Your task to perform on an android device: Clear the shopping cart on bestbuy. Search for razer nari on bestbuy, select the first entry, and add it to the cart. Image 0: 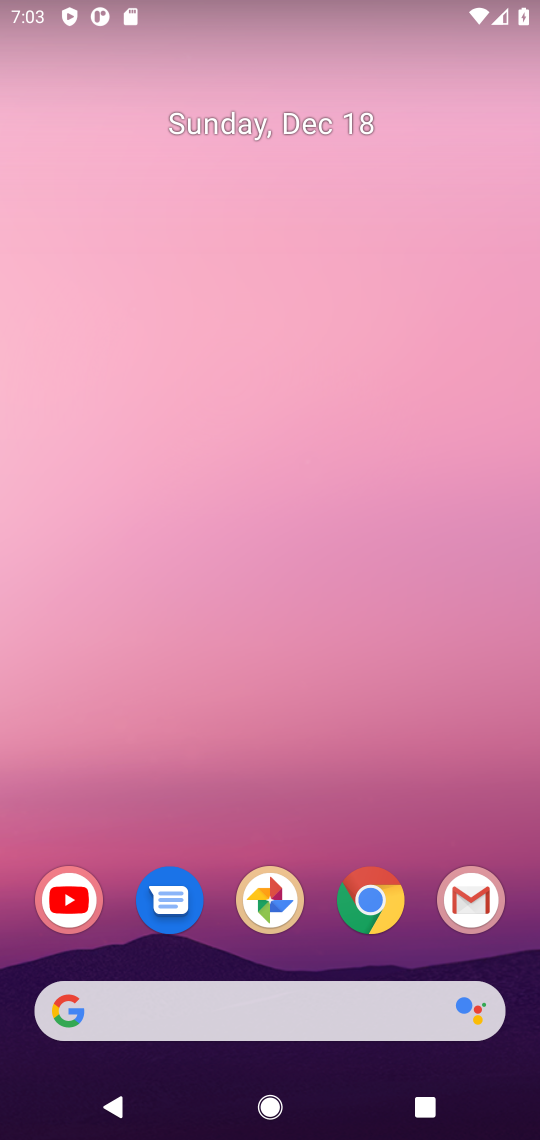
Step 0: click (363, 910)
Your task to perform on an android device: Clear the shopping cart on bestbuy. Search for razer nari on bestbuy, select the first entry, and add it to the cart. Image 1: 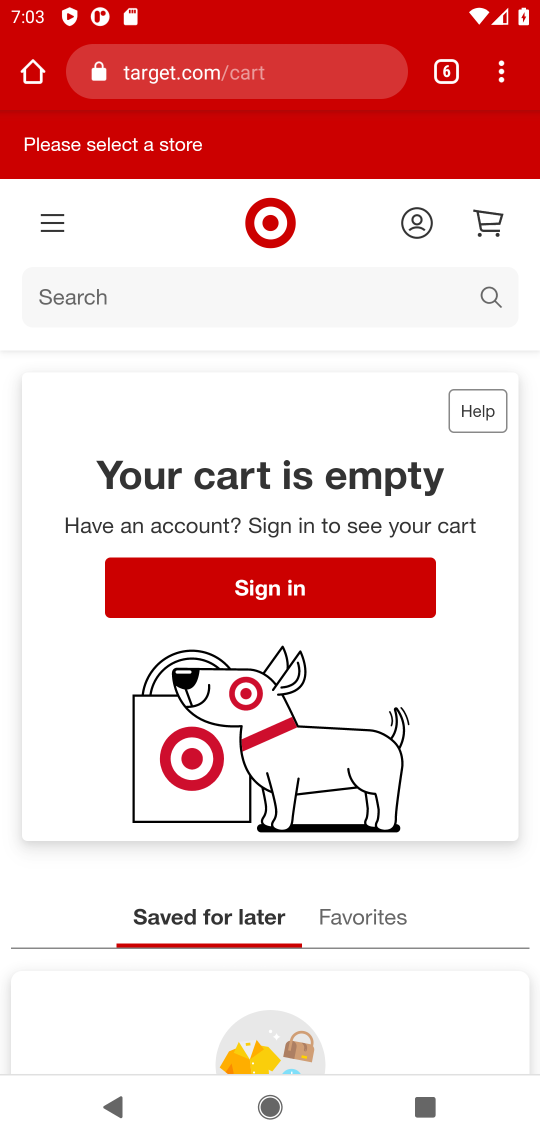
Step 1: click (442, 71)
Your task to perform on an android device: Clear the shopping cart on bestbuy. Search for razer nari on bestbuy, select the first entry, and add it to the cart. Image 2: 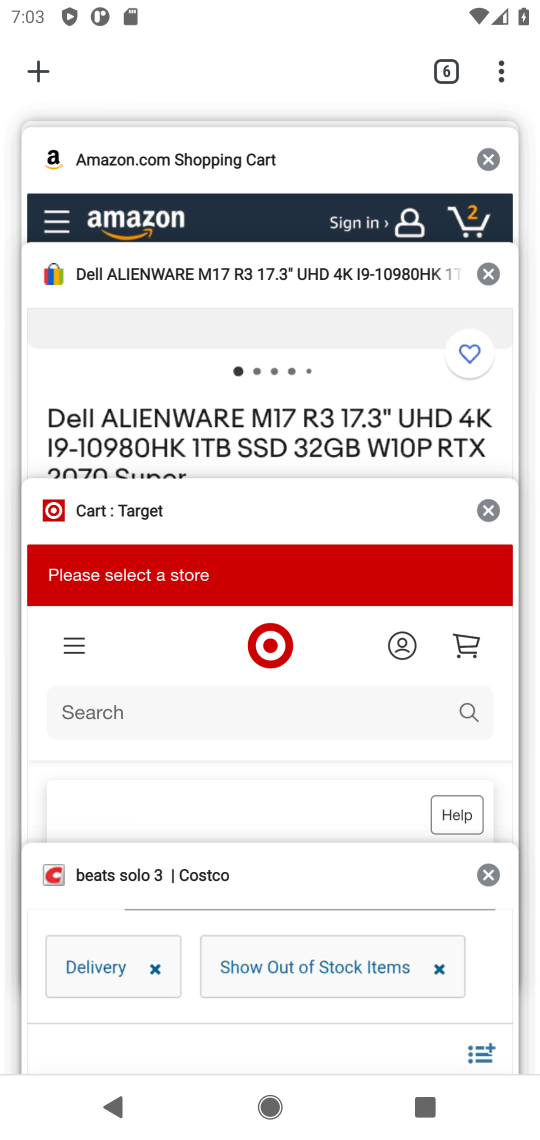
Step 2: drag from (224, 1038) to (307, 373)
Your task to perform on an android device: Clear the shopping cart on bestbuy. Search for razer nari on bestbuy, select the first entry, and add it to the cart. Image 3: 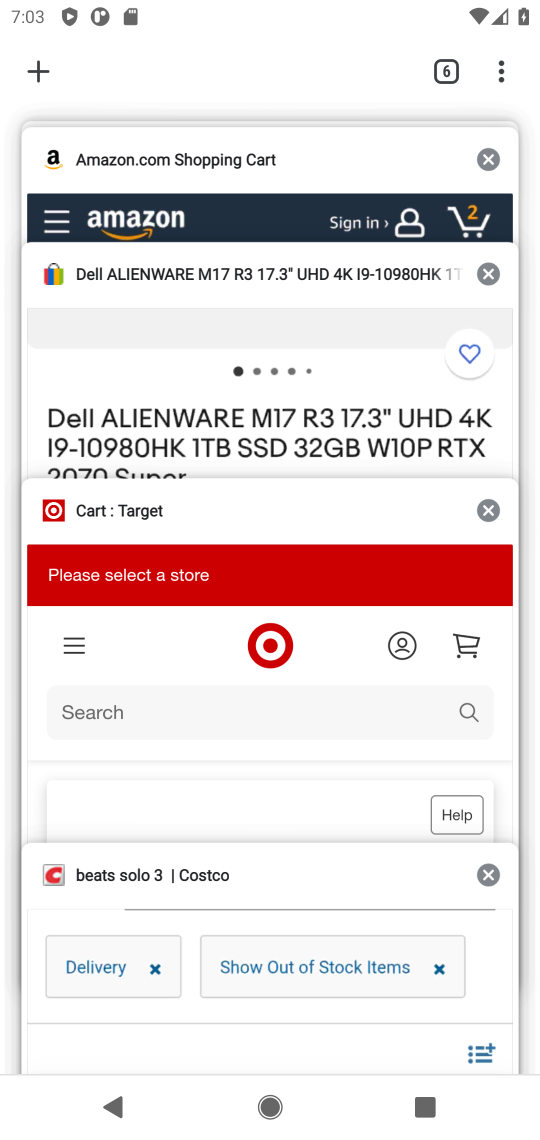
Step 3: drag from (307, 373) to (505, 33)
Your task to perform on an android device: Clear the shopping cart on bestbuy. Search for razer nari on bestbuy, select the first entry, and add it to the cart. Image 4: 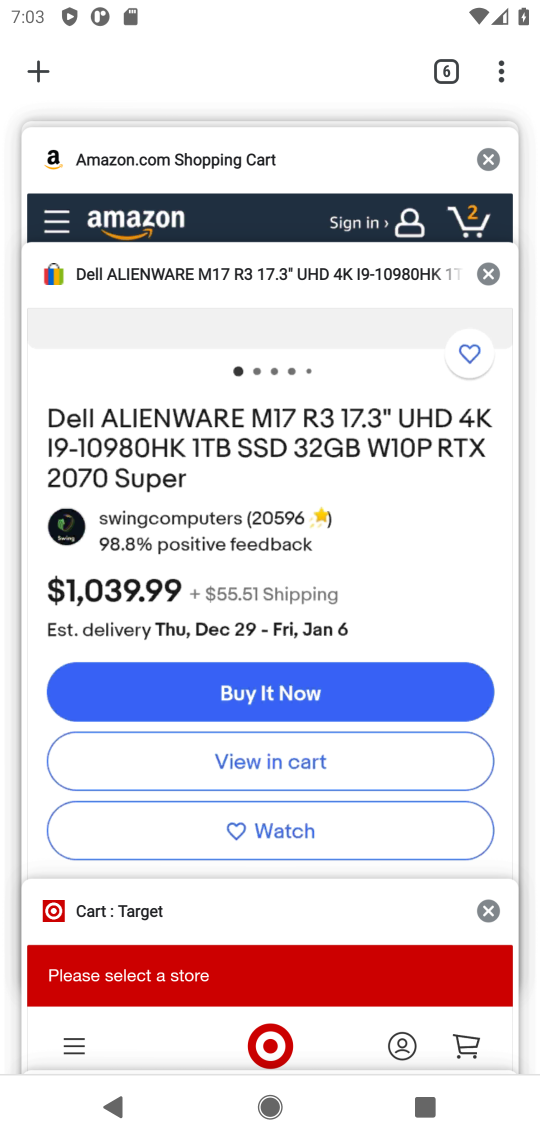
Step 4: drag from (264, 976) to (338, 83)
Your task to perform on an android device: Clear the shopping cart on bestbuy. Search for razer nari on bestbuy, select the first entry, and add it to the cart. Image 5: 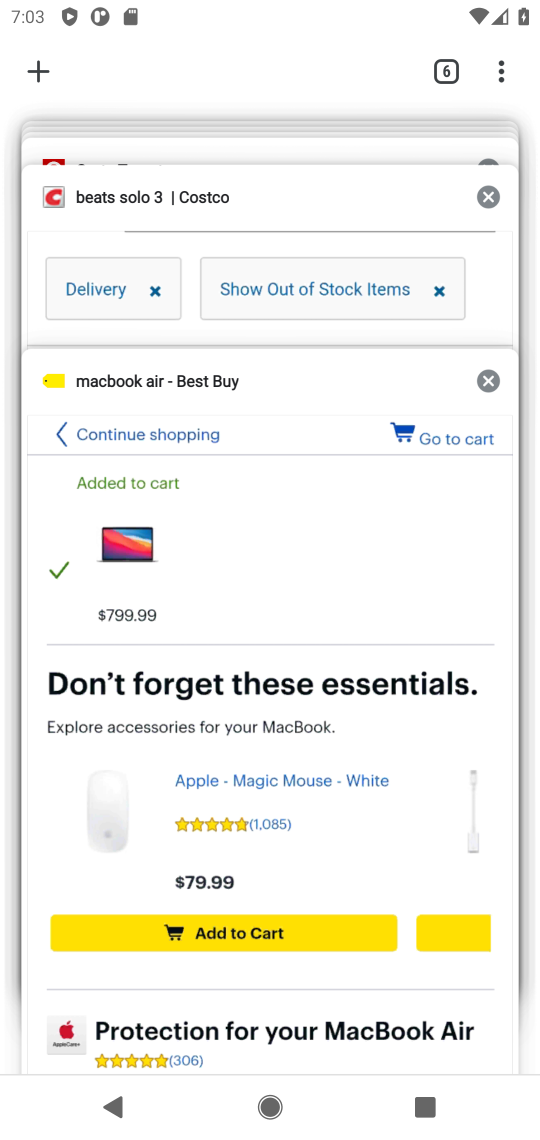
Step 5: click (238, 478)
Your task to perform on an android device: Clear the shopping cart on bestbuy. Search for razer nari on bestbuy, select the first entry, and add it to the cart. Image 6: 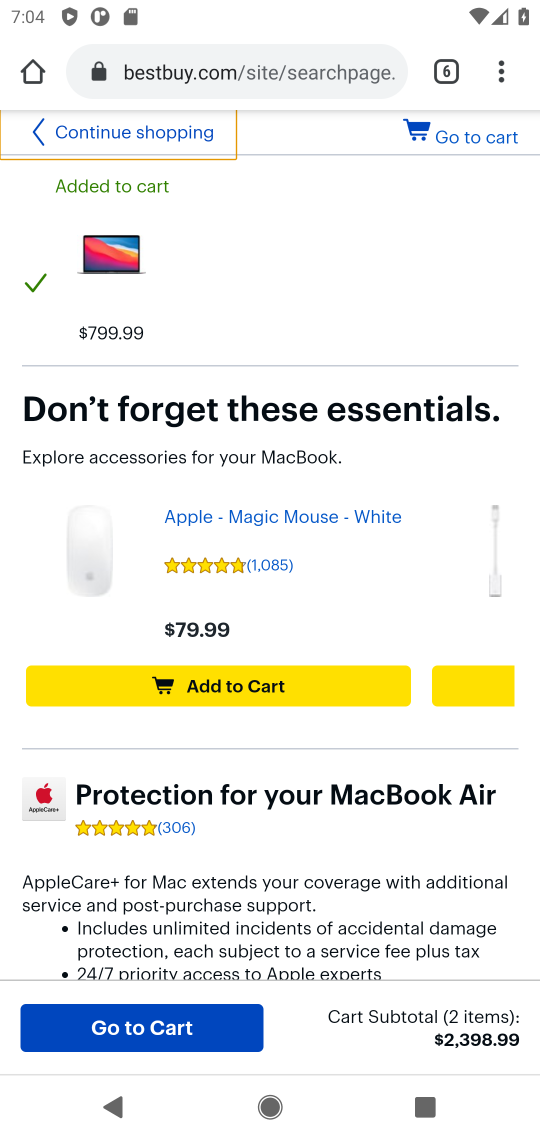
Step 6: click (461, 128)
Your task to perform on an android device: Clear the shopping cart on bestbuy. Search for razer nari on bestbuy, select the first entry, and add it to the cart. Image 7: 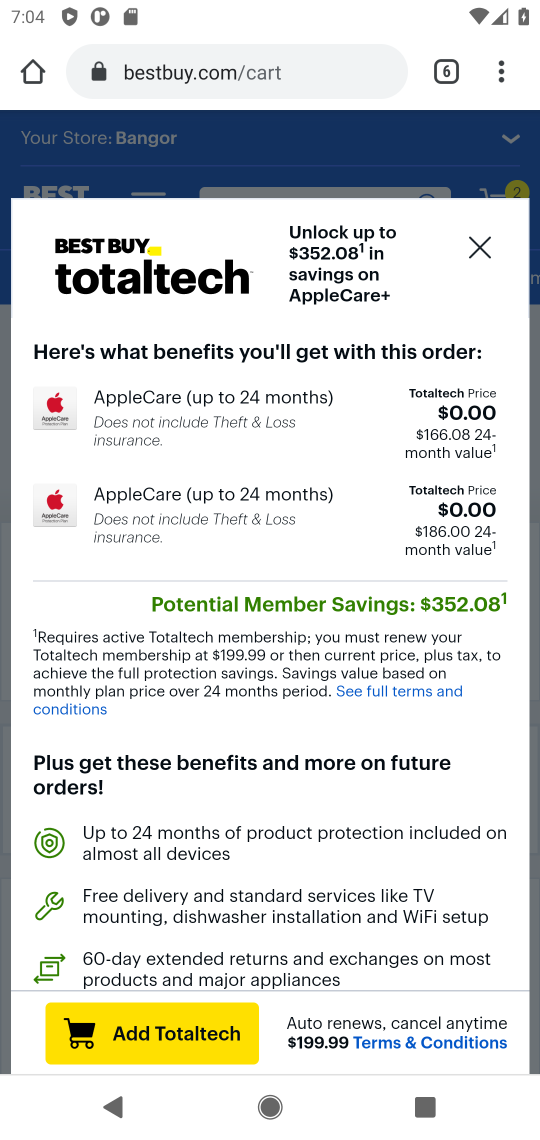
Step 7: click (482, 242)
Your task to perform on an android device: Clear the shopping cart on bestbuy. Search for razer nari on bestbuy, select the first entry, and add it to the cart. Image 8: 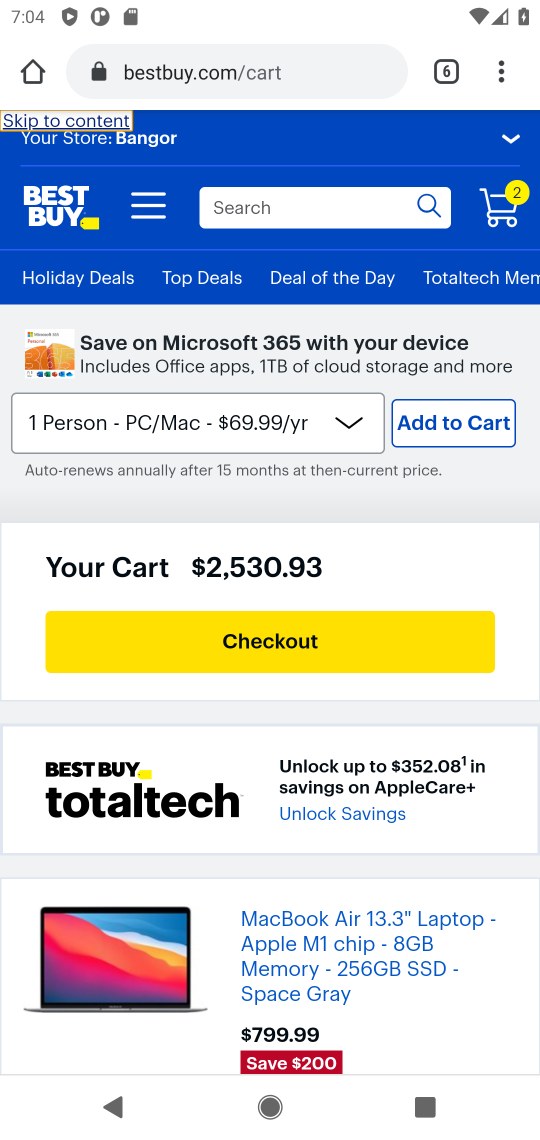
Step 8: drag from (418, 1008) to (528, 600)
Your task to perform on an android device: Clear the shopping cart on bestbuy. Search for razer nari on bestbuy, select the first entry, and add it to the cart. Image 9: 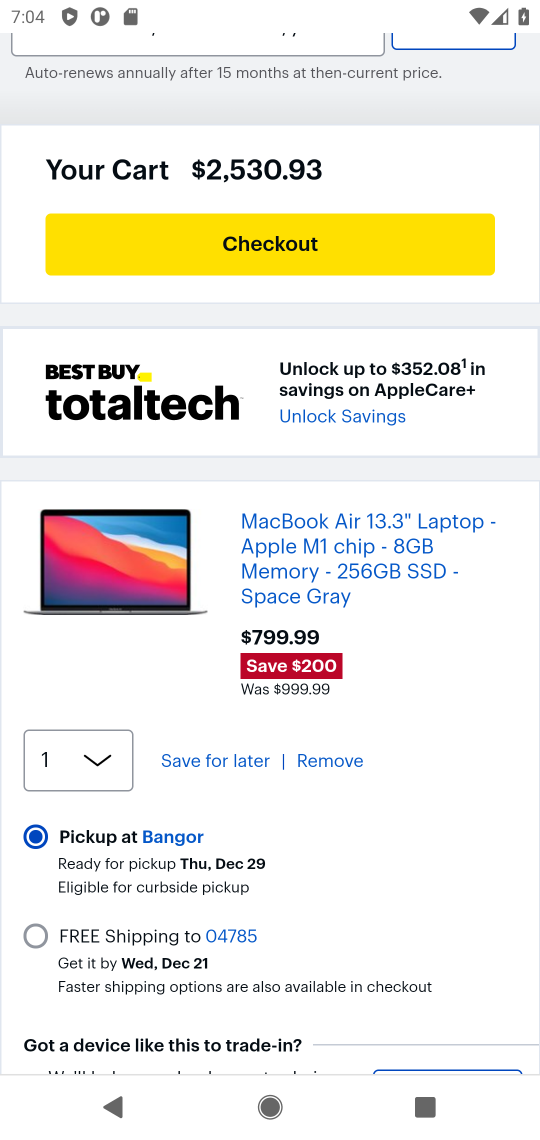
Step 9: click (320, 760)
Your task to perform on an android device: Clear the shopping cart on bestbuy. Search for razer nari on bestbuy, select the first entry, and add it to the cart. Image 10: 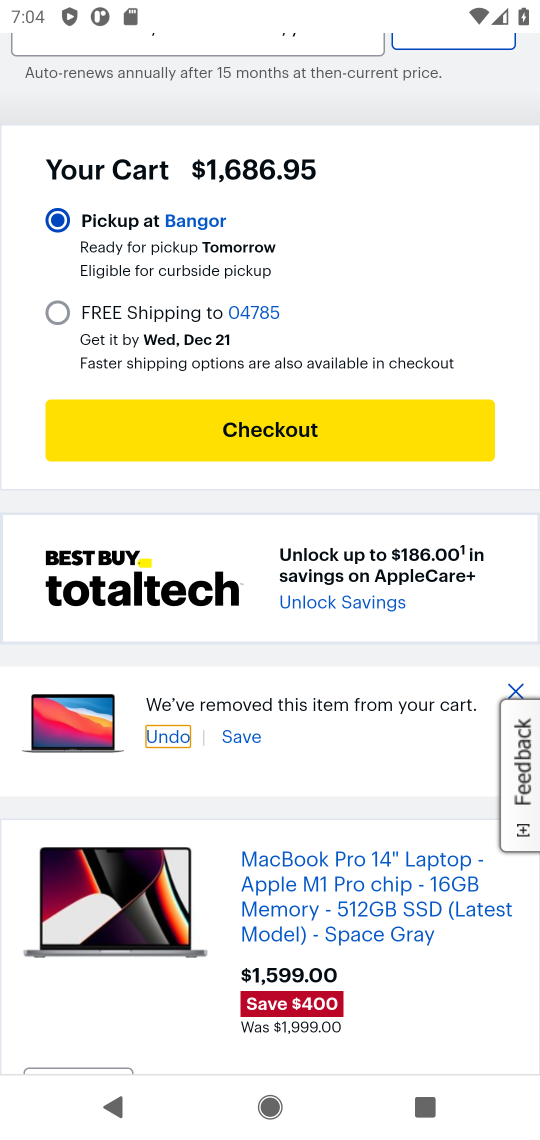
Step 10: drag from (419, 815) to (530, 473)
Your task to perform on an android device: Clear the shopping cart on bestbuy. Search for razer nari on bestbuy, select the first entry, and add it to the cart. Image 11: 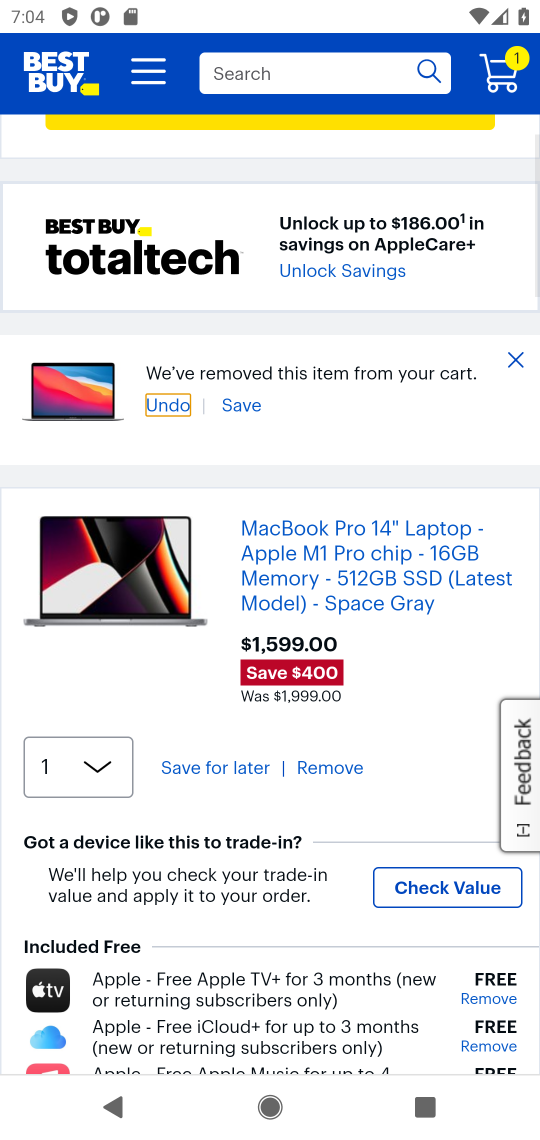
Step 11: click (331, 522)
Your task to perform on an android device: Clear the shopping cart on bestbuy. Search for razer nari on bestbuy, select the first entry, and add it to the cart. Image 12: 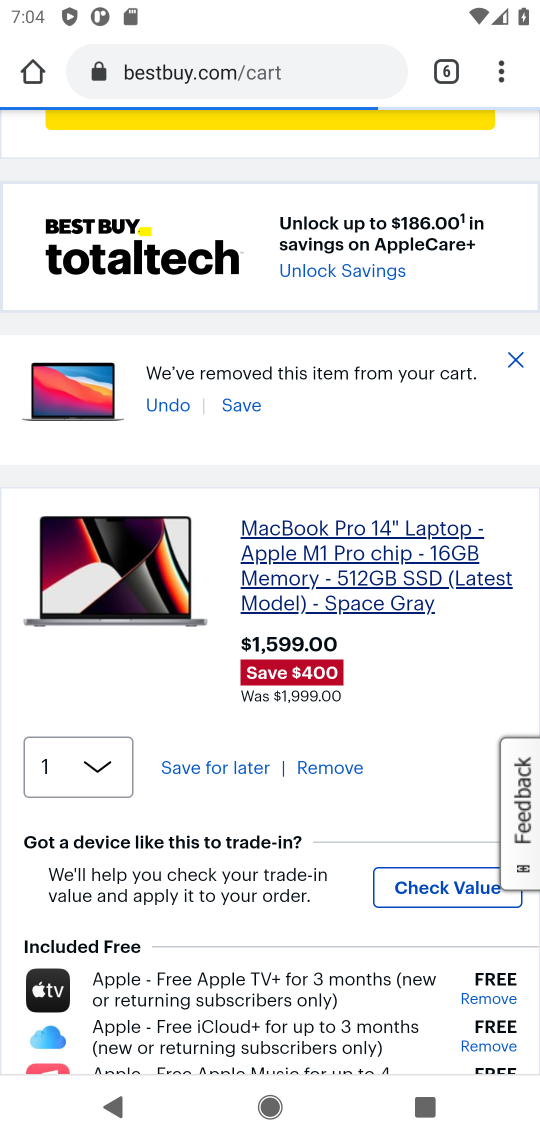
Step 12: click (333, 764)
Your task to perform on an android device: Clear the shopping cart on bestbuy. Search for razer nari on bestbuy, select the first entry, and add it to the cart. Image 13: 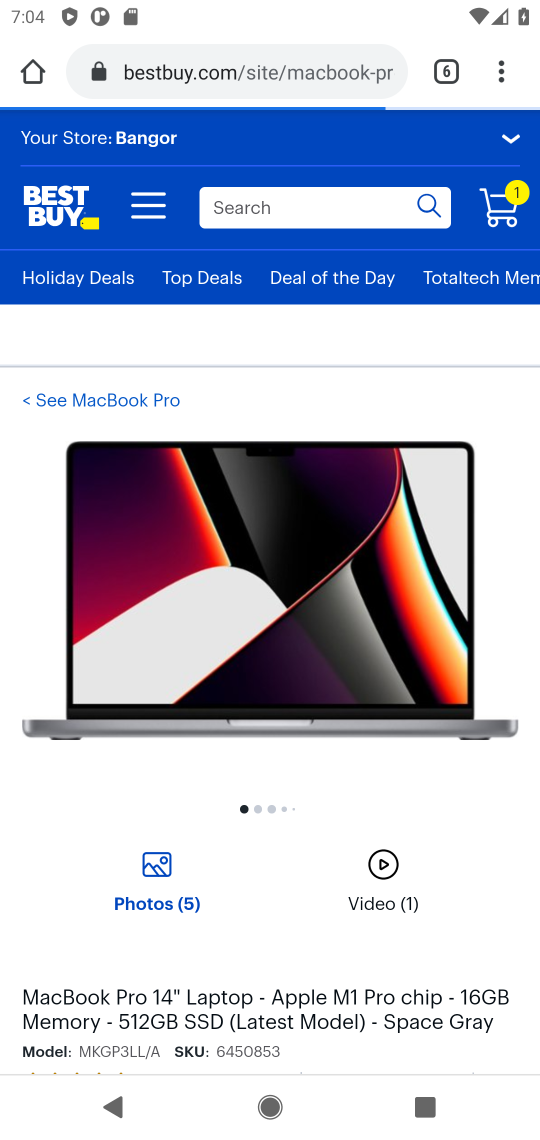
Step 13: click (495, 215)
Your task to perform on an android device: Clear the shopping cart on bestbuy. Search for razer nari on bestbuy, select the first entry, and add it to the cart. Image 14: 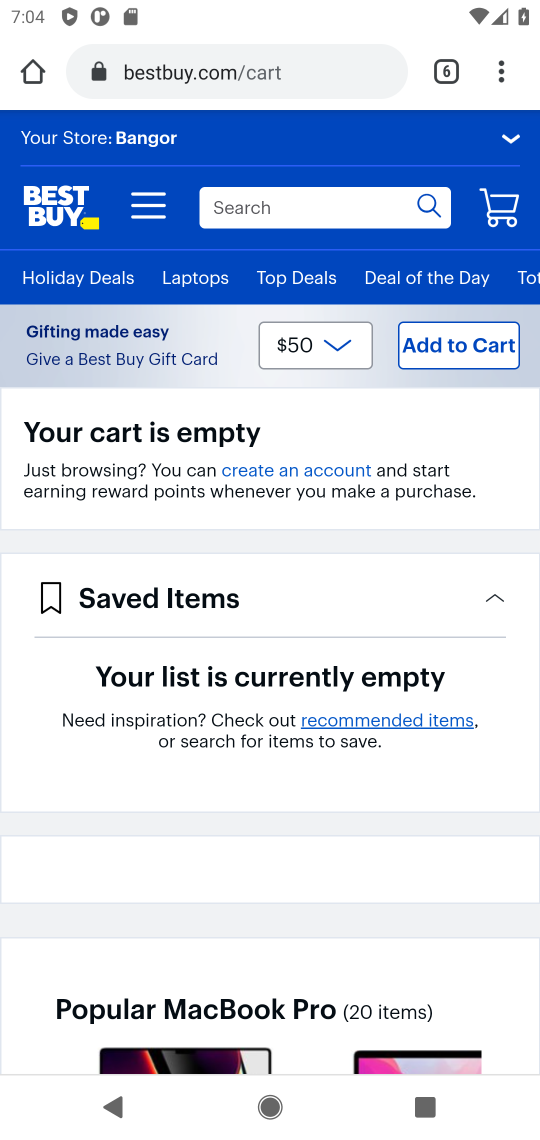
Step 14: click (256, 202)
Your task to perform on an android device: Clear the shopping cart on bestbuy. Search for razer nari on bestbuy, select the first entry, and add it to the cart. Image 15: 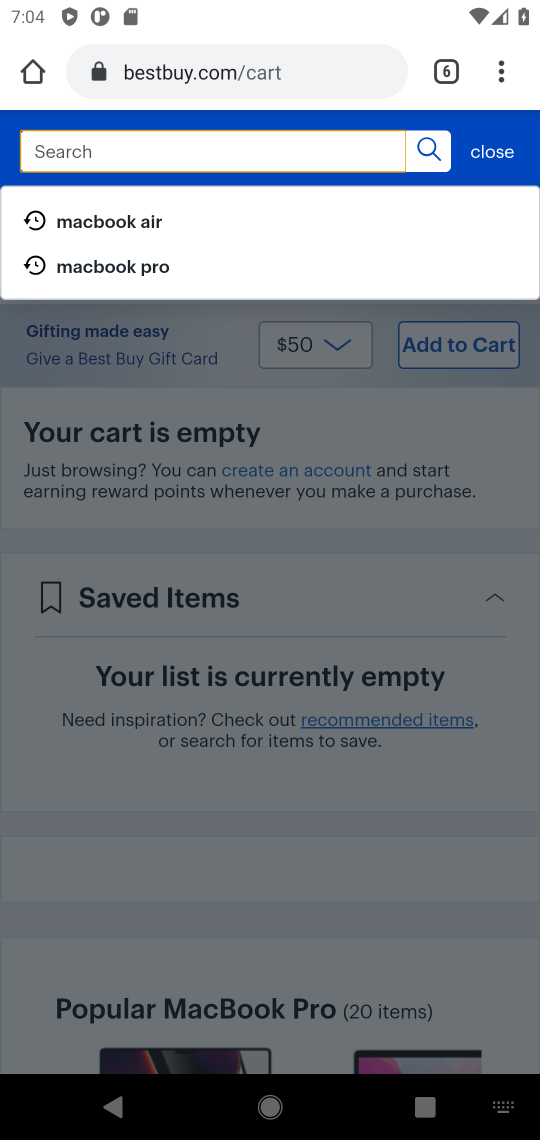
Step 15: type "razer nari"
Your task to perform on an android device: Clear the shopping cart on bestbuy. Search for razer nari on bestbuy, select the first entry, and add it to the cart. Image 16: 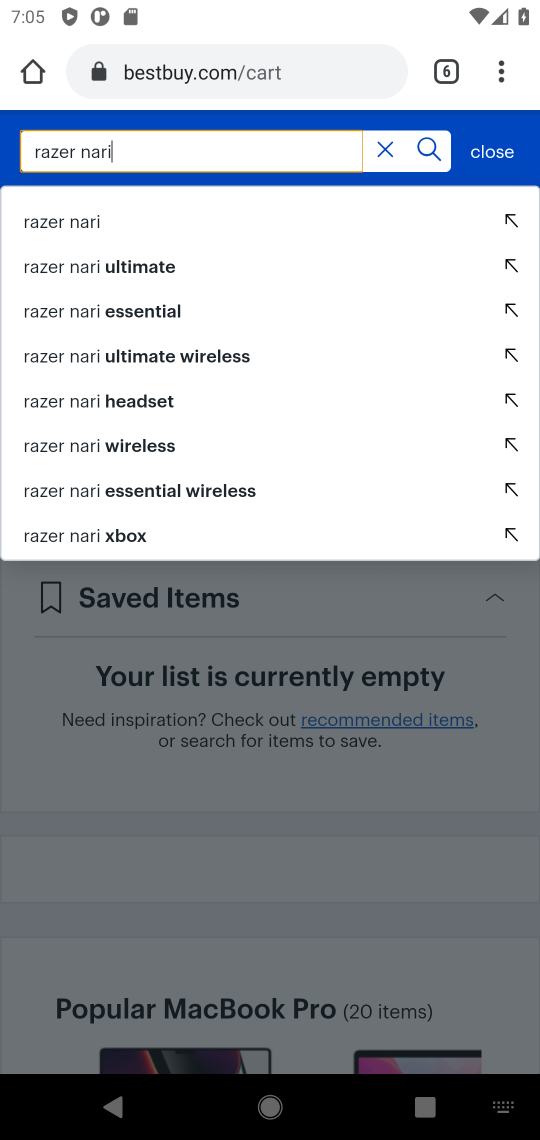
Step 16: click (70, 224)
Your task to perform on an android device: Clear the shopping cart on bestbuy. Search for razer nari on bestbuy, select the first entry, and add it to the cart. Image 17: 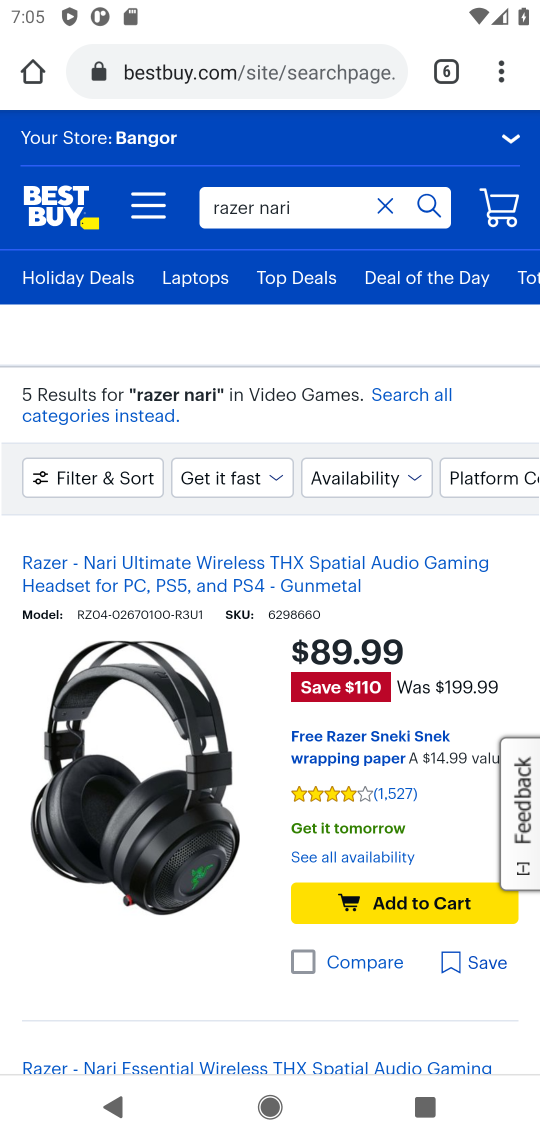
Step 17: click (378, 905)
Your task to perform on an android device: Clear the shopping cart on bestbuy. Search for razer nari on bestbuy, select the first entry, and add it to the cart. Image 18: 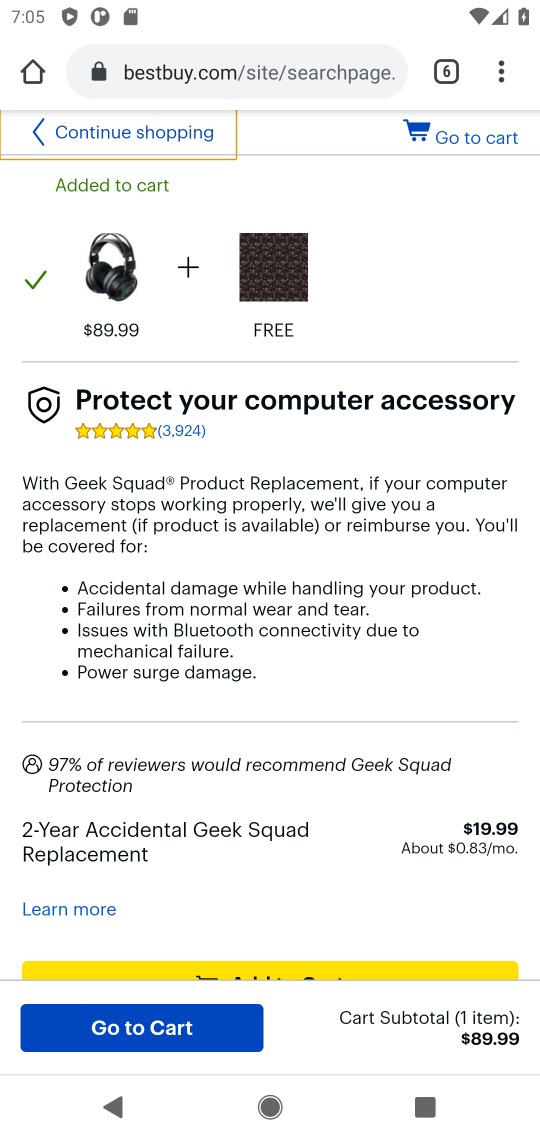
Step 18: task complete